Your task to perform on an android device: toggle wifi Image 0: 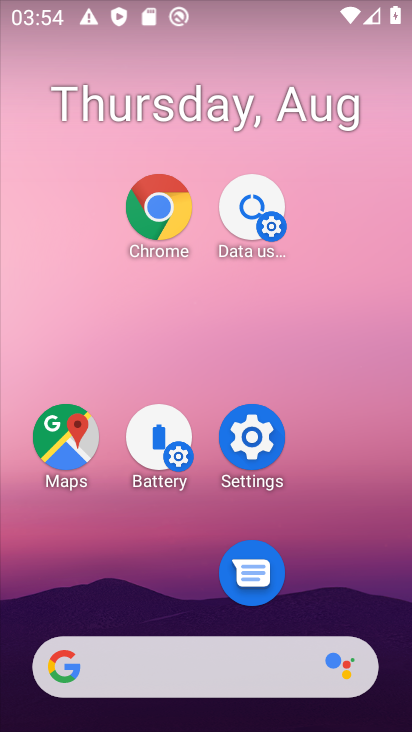
Step 0: drag from (198, 289) to (182, 191)
Your task to perform on an android device: toggle wifi Image 1: 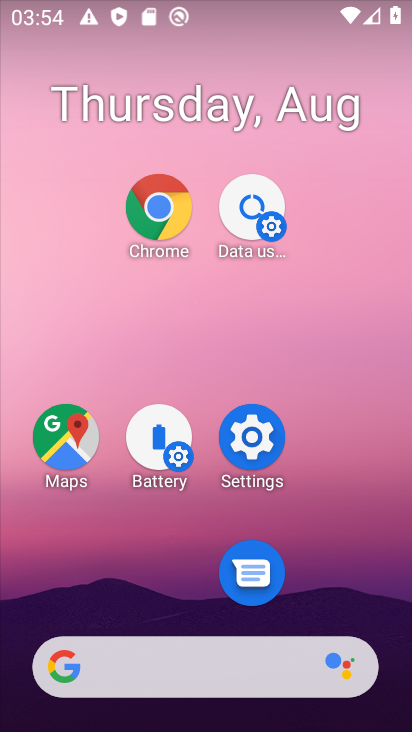
Step 1: drag from (261, 661) to (253, 133)
Your task to perform on an android device: toggle wifi Image 2: 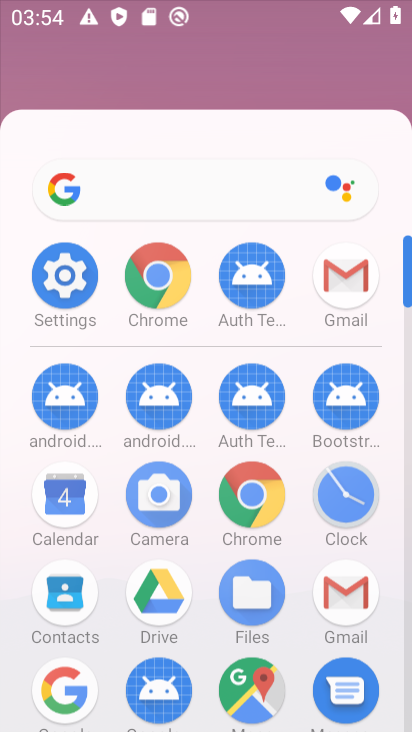
Step 2: drag from (216, 545) to (189, 146)
Your task to perform on an android device: toggle wifi Image 3: 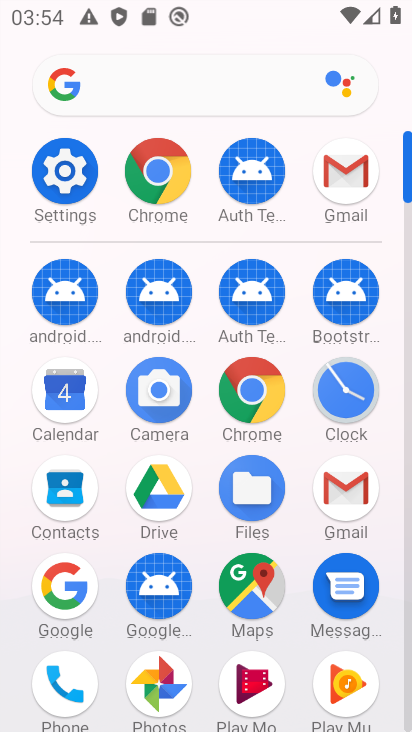
Step 3: drag from (209, 473) to (201, 257)
Your task to perform on an android device: toggle wifi Image 4: 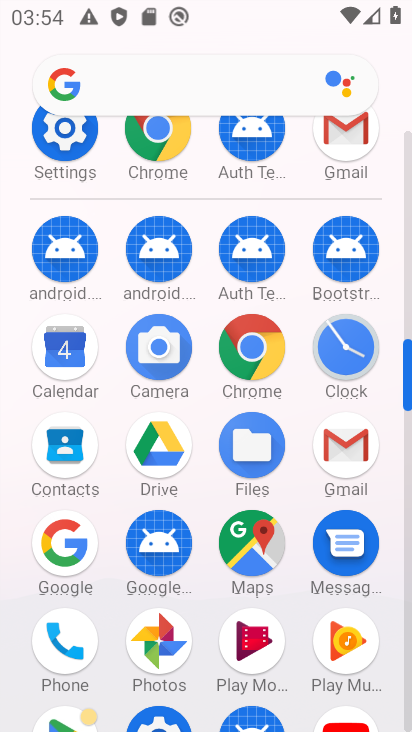
Step 4: click (64, 133)
Your task to perform on an android device: toggle wifi Image 5: 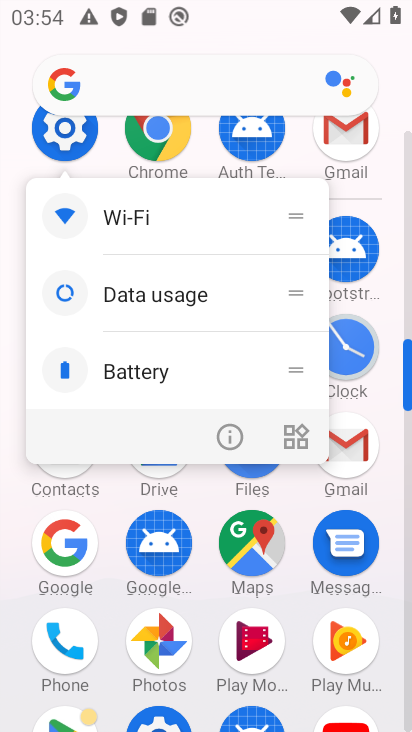
Step 5: click (134, 232)
Your task to perform on an android device: toggle wifi Image 6: 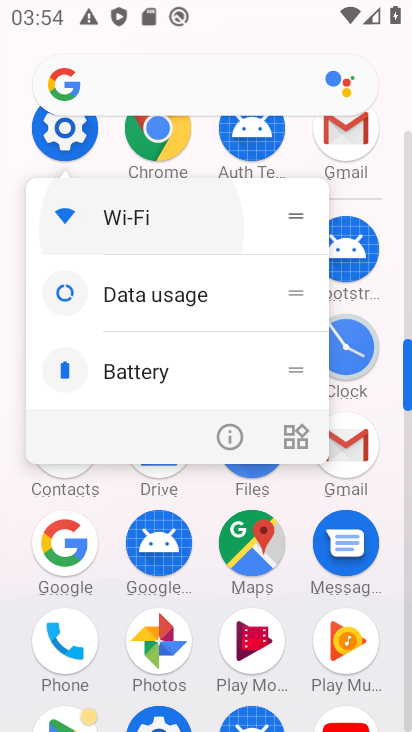
Step 6: click (135, 231)
Your task to perform on an android device: toggle wifi Image 7: 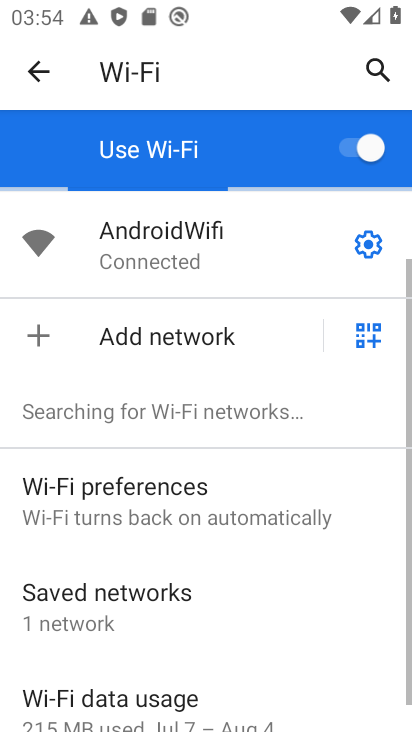
Step 7: click (371, 143)
Your task to perform on an android device: toggle wifi Image 8: 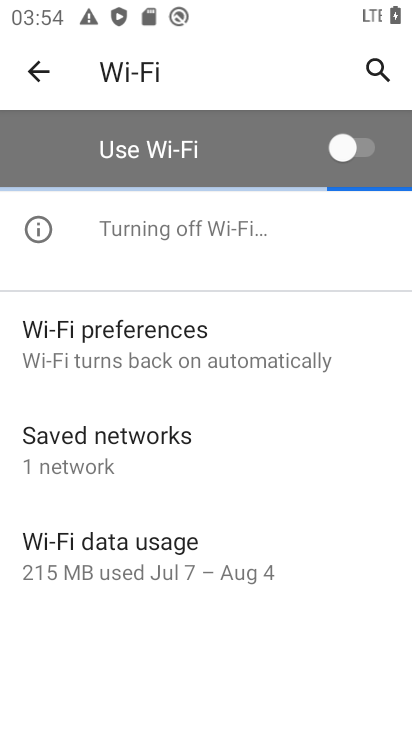
Step 8: task complete